Your task to perform on an android device: What's the weather today? Image 0: 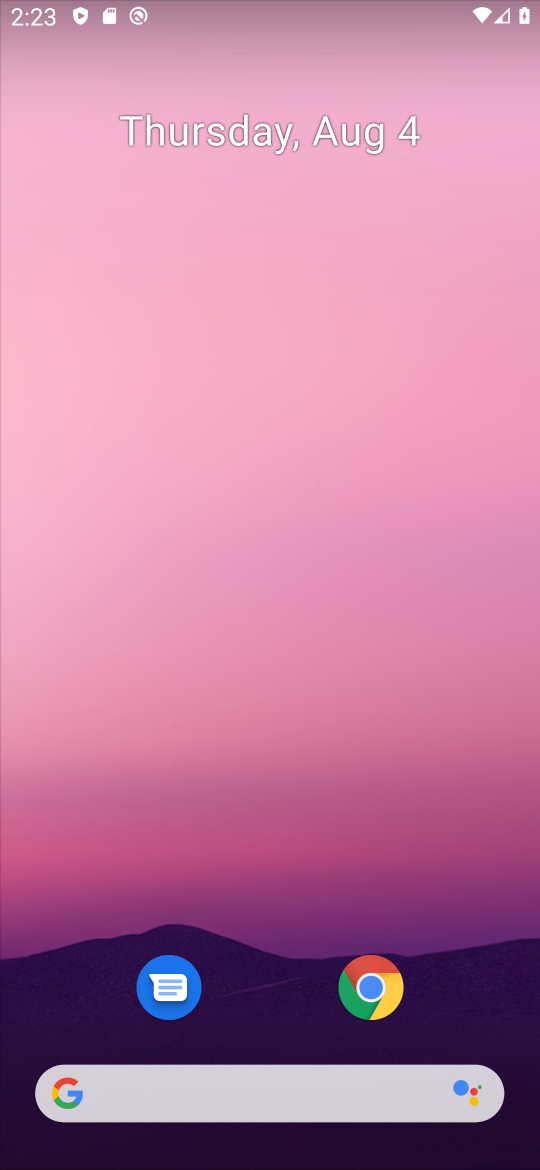
Step 0: drag from (524, 993) to (205, 127)
Your task to perform on an android device: What's the weather today? Image 1: 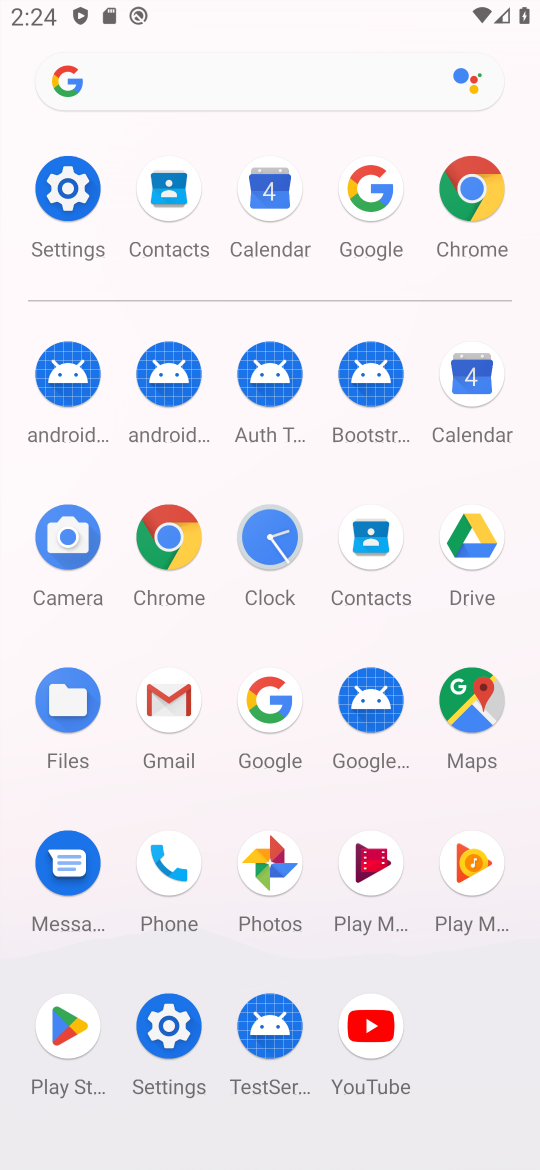
Step 1: click (268, 674)
Your task to perform on an android device: What's the weather today? Image 2: 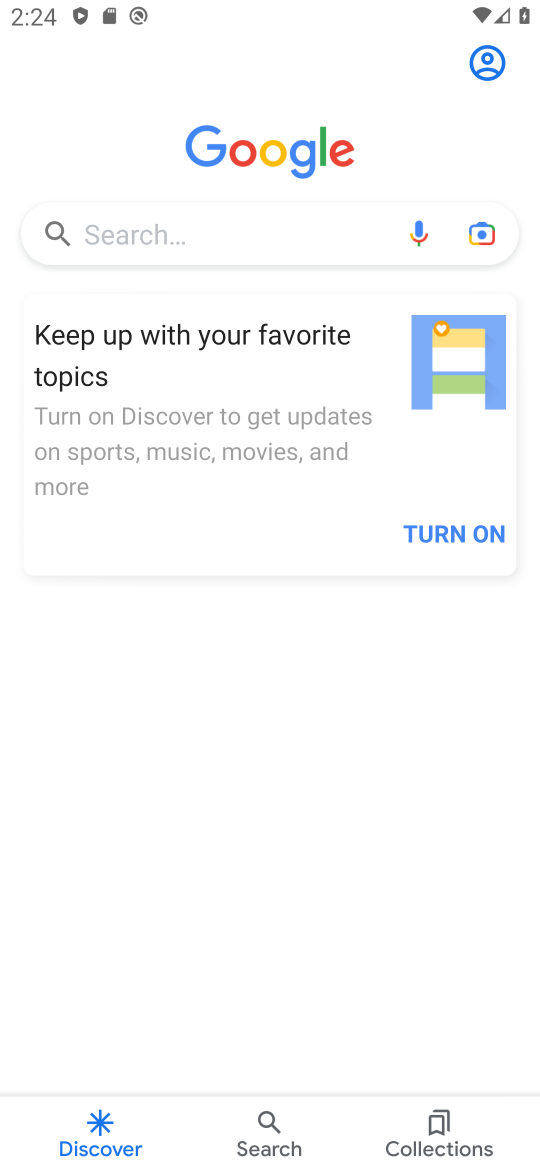
Step 2: click (177, 225)
Your task to perform on an android device: What's the weather today? Image 3: 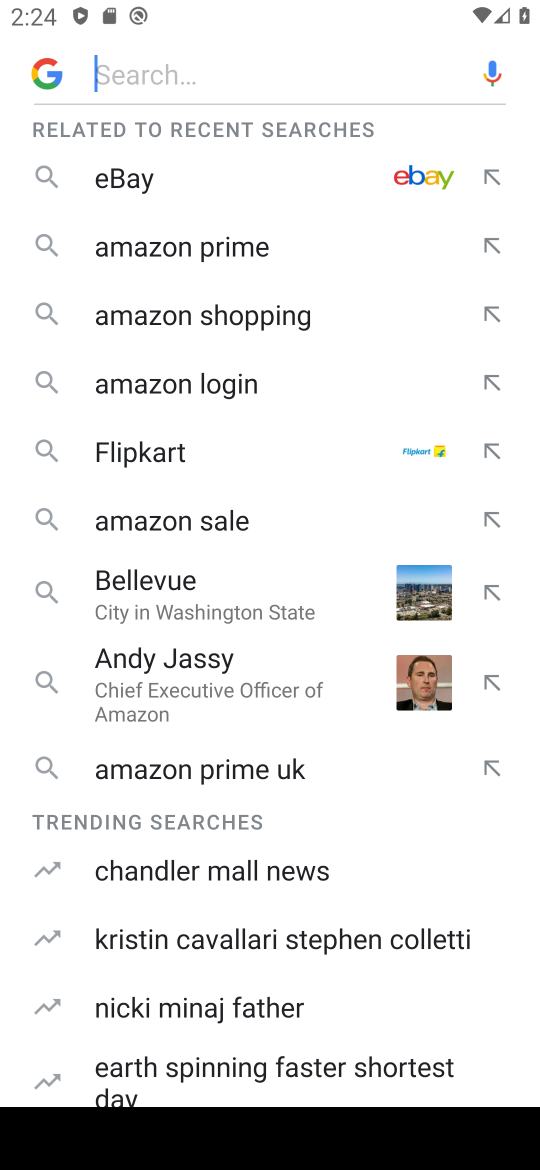
Step 3: type "What's the weather today?"
Your task to perform on an android device: What's the weather today? Image 4: 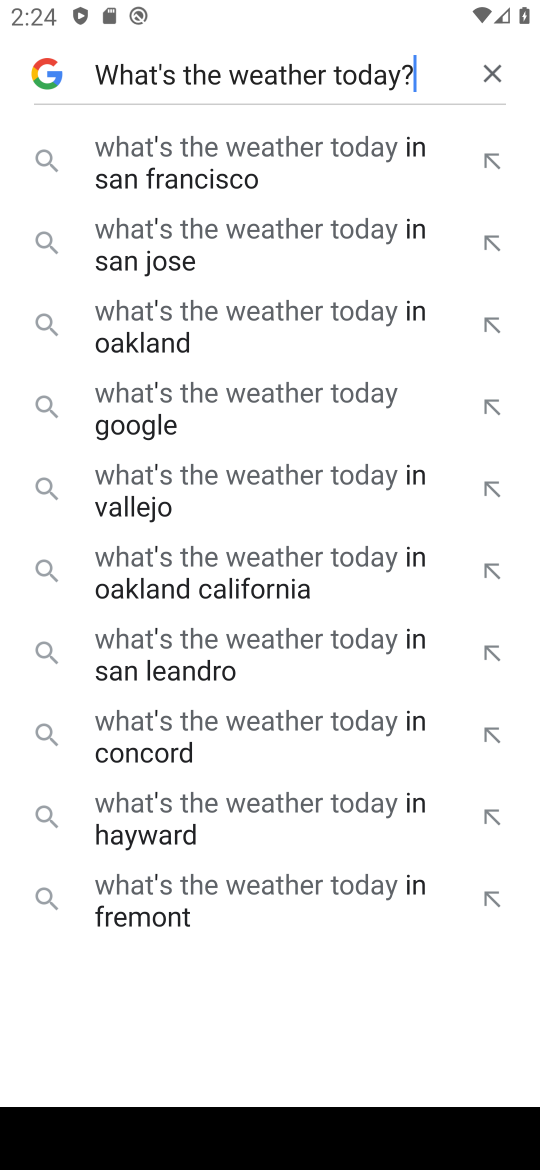
Step 4: click (261, 416)
Your task to perform on an android device: What's the weather today? Image 5: 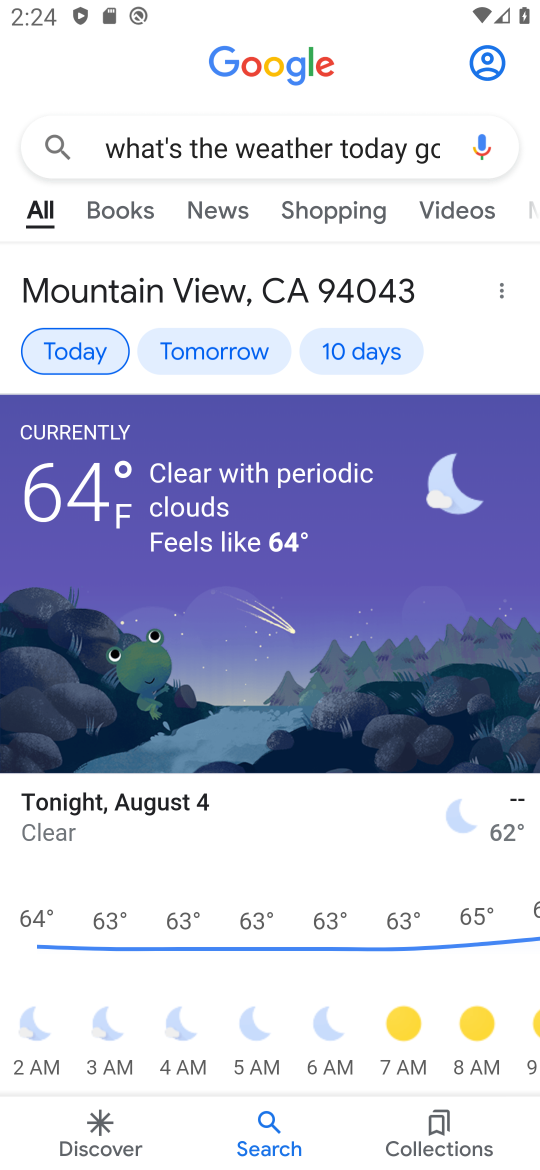
Step 5: task complete